Your task to perform on an android device: Show the shopping cart on ebay.com. Search for alienware area 51 on ebay.com, select the first entry, and add it to the cart. Image 0: 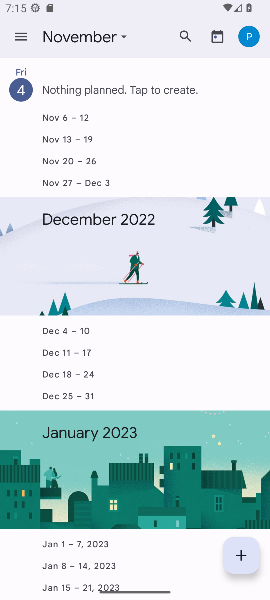
Step 0: press home button
Your task to perform on an android device: Show the shopping cart on ebay.com. Search for alienware area 51 on ebay.com, select the first entry, and add it to the cart. Image 1: 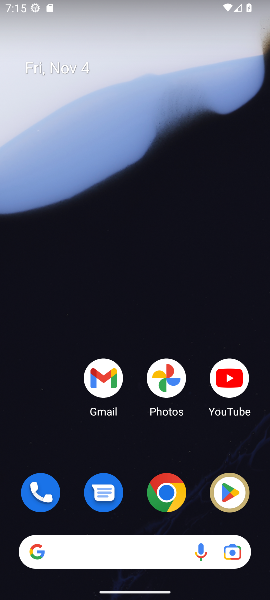
Step 1: drag from (130, 448) to (113, 91)
Your task to perform on an android device: Show the shopping cart on ebay.com. Search for alienware area 51 on ebay.com, select the first entry, and add it to the cart. Image 2: 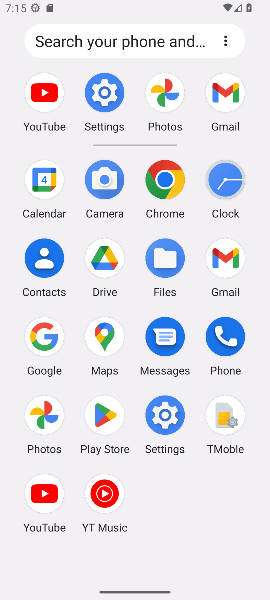
Step 2: click (160, 184)
Your task to perform on an android device: Show the shopping cart on ebay.com. Search for alienware area 51 on ebay.com, select the first entry, and add it to the cart. Image 3: 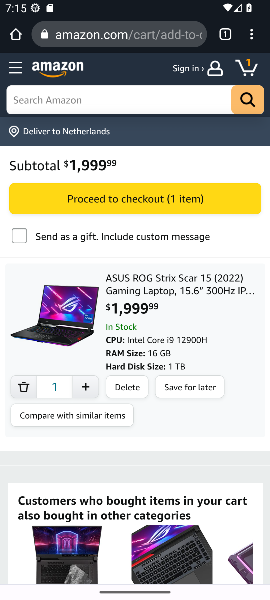
Step 3: click (150, 32)
Your task to perform on an android device: Show the shopping cart on ebay.com. Search for alienware area 51 on ebay.com, select the first entry, and add it to the cart. Image 4: 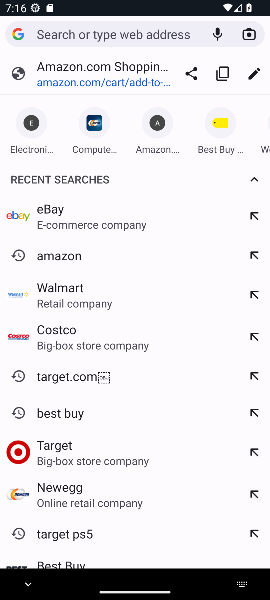
Step 4: type "ebay.com"
Your task to perform on an android device: Show the shopping cart on ebay.com. Search for alienware area 51 on ebay.com, select the first entry, and add it to the cart. Image 5: 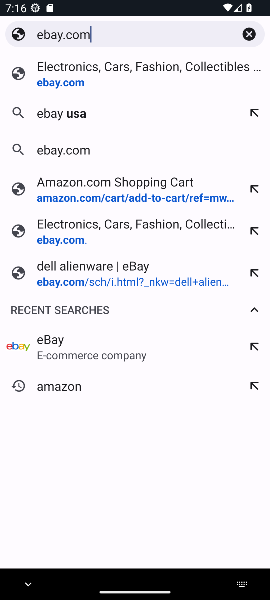
Step 5: press enter
Your task to perform on an android device: Show the shopping cart on ebay.com. Search for alienware area 51 on ebay.com, select the first entry, and add it to the cart. Image 6: 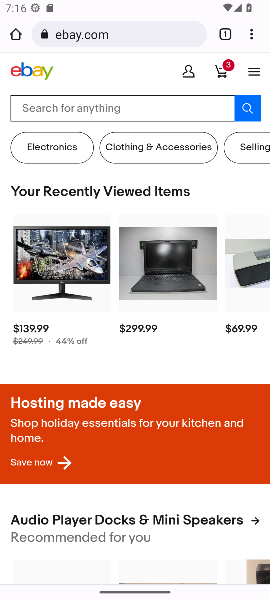
Step 6: click (218, 66)
Your task to perform on an android device: Show the shopping cart on ebay.com. Search for alienware area 51 on ebay.com, select the first entry, and add it to the cart. Image 7: 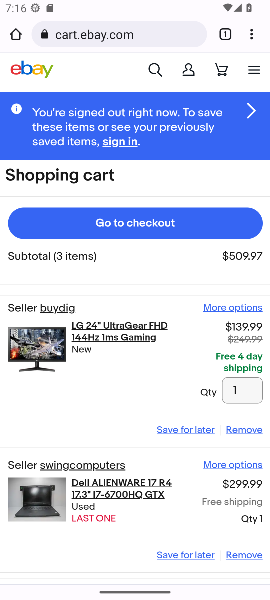
Step 7: click (241, 429)
Your task to perform on an android device: Show the shopping cart on ebay.com. Search for alienware area 51 on ebay.com, select the first entry, and add it to the cart. Image 8: 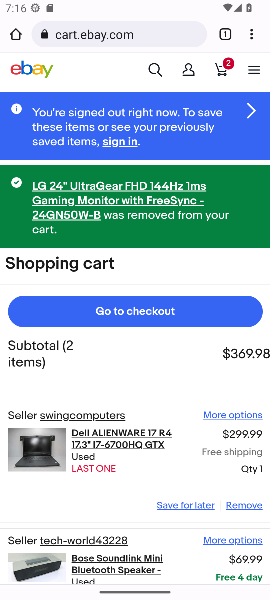
Step 8: click (243, 505)
Your task to perform on an android device: Show the shopping cart on ebay.com. Search for alienware area 51 on ebay.com, select the first entry, and add it to the cart. Image 9: 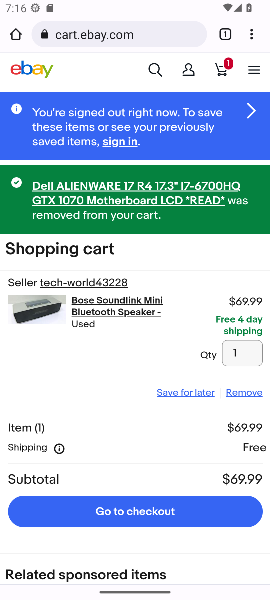
Step 9: click (151, 62)
Your task to perform on an android device: Show the shopping cart on ebay.com. Search for alienware area 51 on ebay.com, select the first entry, and add it to the cart. Image 10: 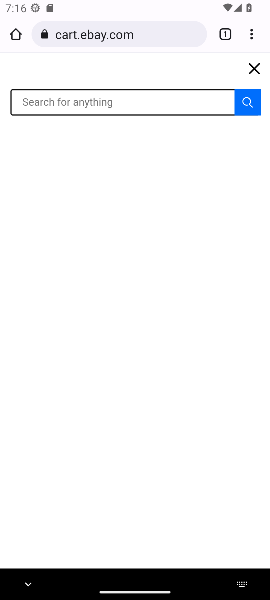
Step 10: type "alienware area 51"
Your task to perform on an android device: Show the shopping cart on ebay.com. Search for alienware area 51 on ebay.com, select the first entry, and add it to the cart. Image 11: 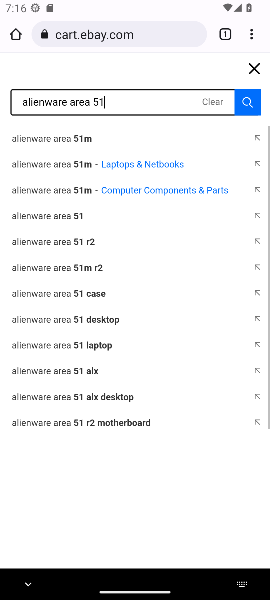
Step 11: press enter
Your task to perform on an android device: Show the shopping cart on ebay.com. Search for alienware area 51 on ebay.com, select the first entry, and add it to the cart. Image 12: 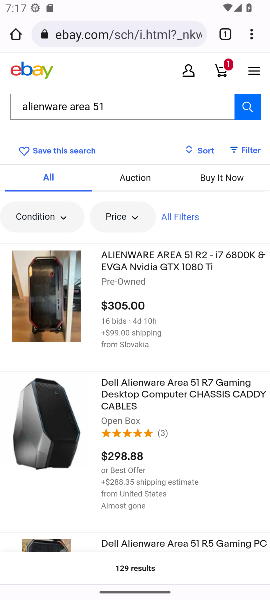
Step 12: click (58, 273)
Your task to perform on an android device: Show the shopping cart on ebay.com. Search for alienware area 51 on ebay.com, select the first entry, and add it to the cart. Image 13: 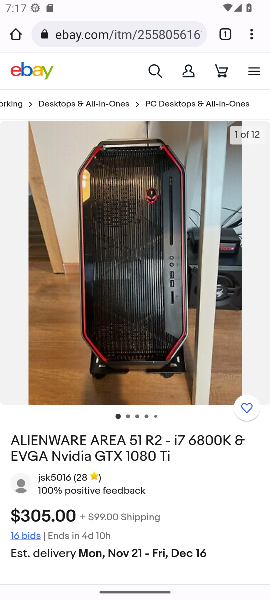
Step 13: task complete